Your task to perform on an android device: Open notification settings Image 0: 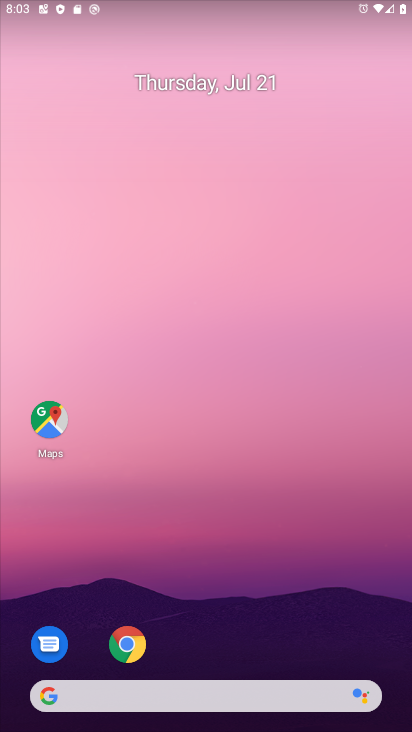
Step 0: drag from (220, 630) to (216, 143)
Your task to perform on an android device: Open notification settings Image 1: 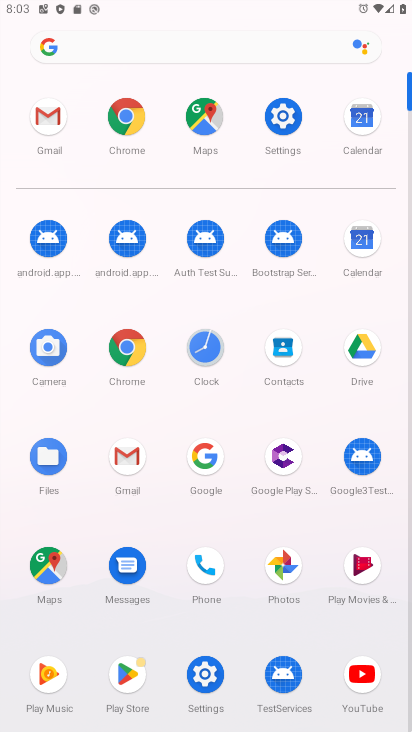
Step 1: click (296, 104)
Your task to perform on an android device: Open notification settings Image 2: 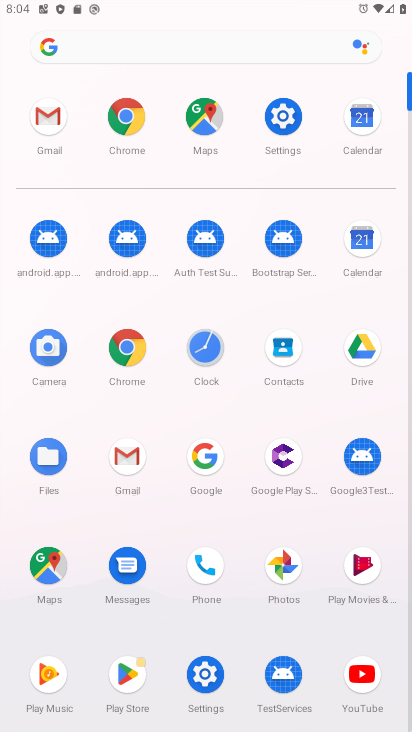
Step 2: click (286, 103)
Your task to perform on an android device: Open notification settings Image 3: 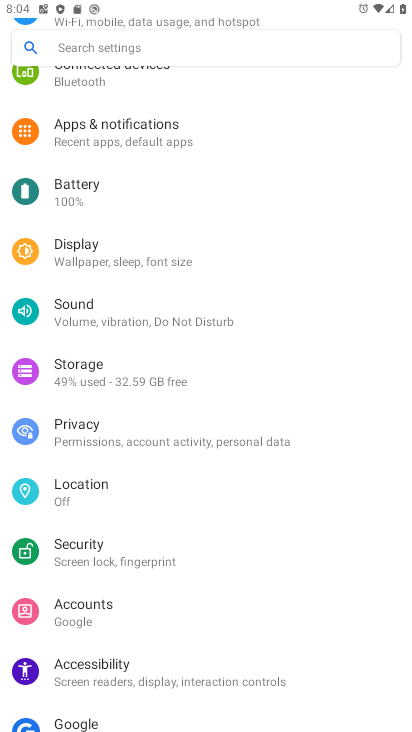
Step 3: click (123, 134)
Your task to perform on an android device: Open notification settings Image 4: 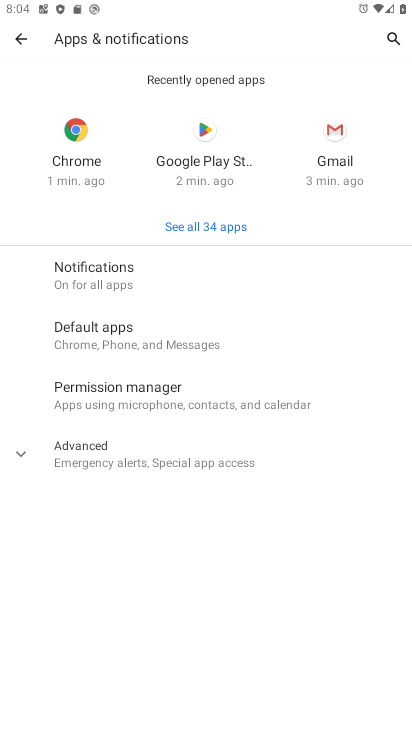
Step 4: click (111, 275)
Your task to perform on an android device: Open notification settings Image 5: 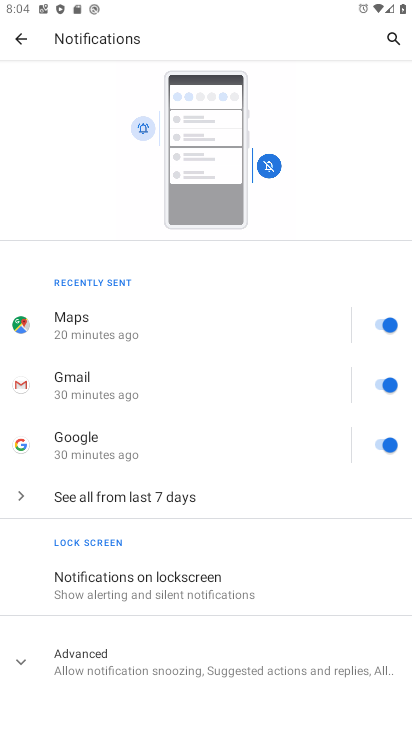
Step 5: task complete